Your task to perform on an android device: toggle airplane mode Image 0: 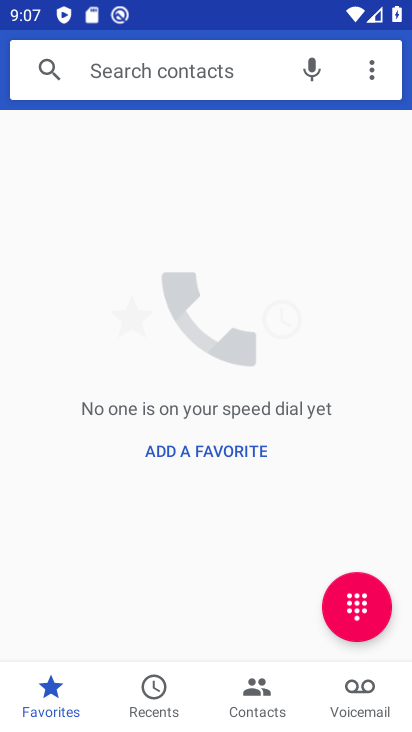
Step 0: press home button
Your task to perform on an android device: toggle airplane mode Image 1: 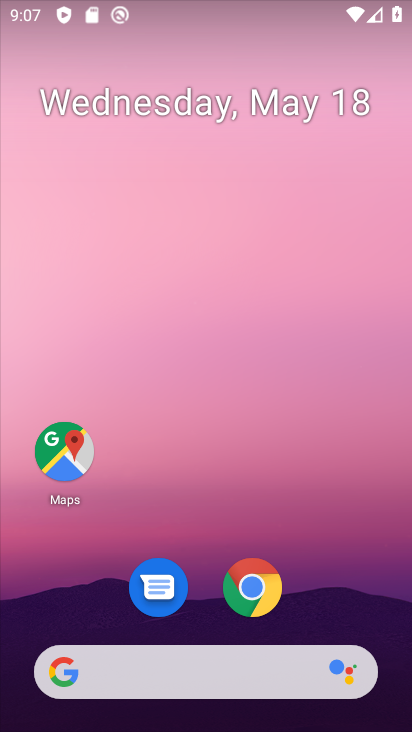
Step 1: drag from (381, 598) to (325, 112)
Your task to perform on an android device: toggle airplane mode Image 2: 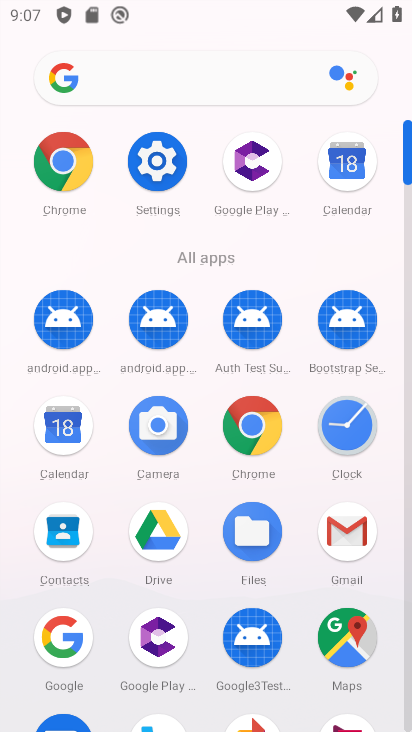
Step 2: click (181, 181)
Your task to perform on an android device: toggle airplane mode Image 3: 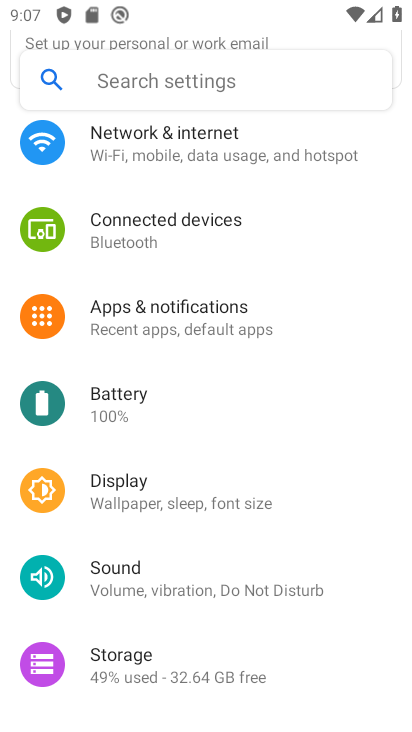
Step 3: click (201, 159)
Your task to perform on an android device: toggle airplane mode Image 4: 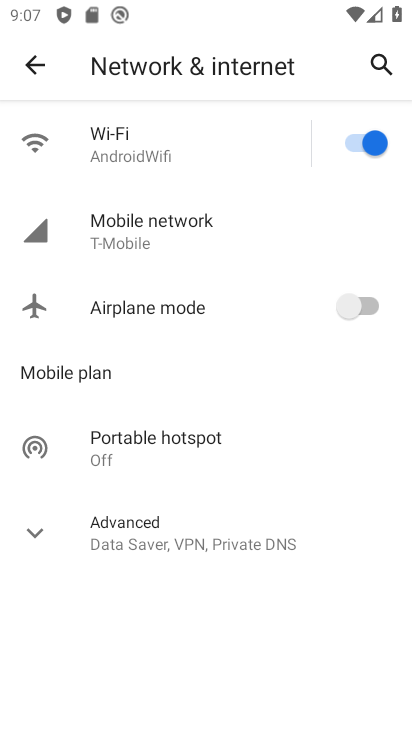
Step 4: click (366, 304)
Your task to perform on an android device: toggle airplane mode Image 5: 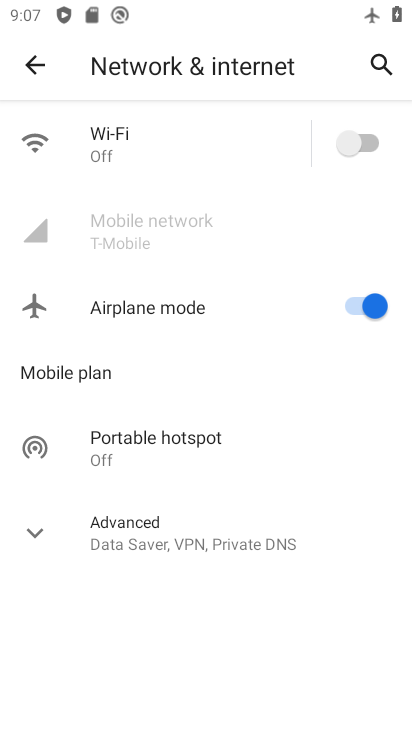
Step 5: task complete